Your task to perform on an android device: Go to network settings Image 0: 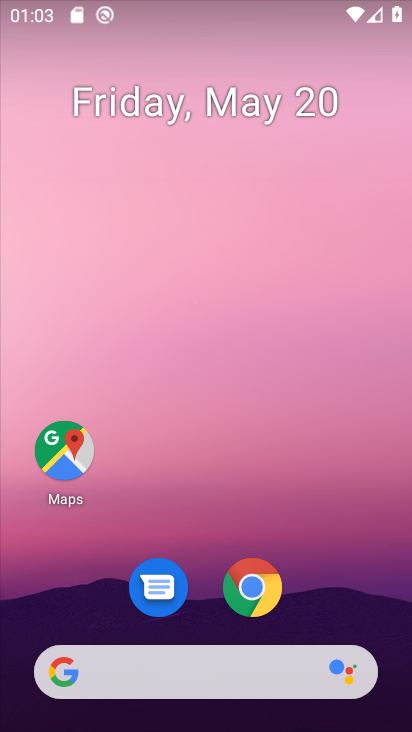
Step 0: drag from (377, 619) to (382, 146)
Your task to perform on an android device: Go to network settings Image 1: 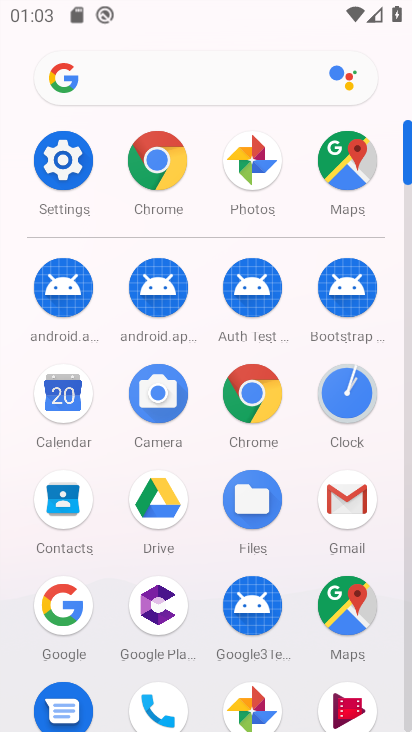
Step 1: click (70, 167)
Your task to perform on an android device: Go to network settings Image 2: 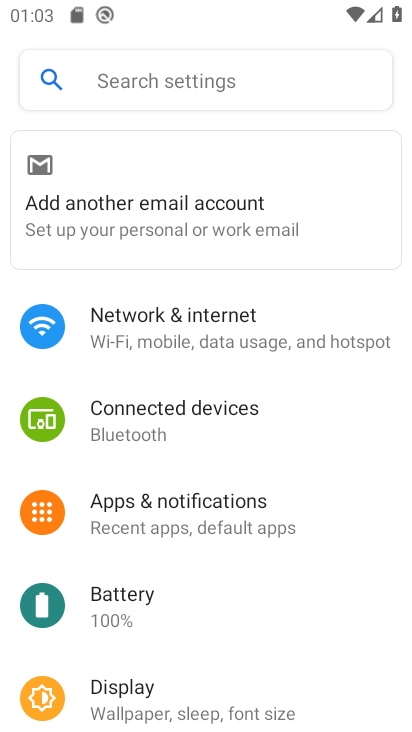
Step 2: drag from (322, 544) to (337, 470)
Your task to perform on an android device: Go to network settings Image 3: 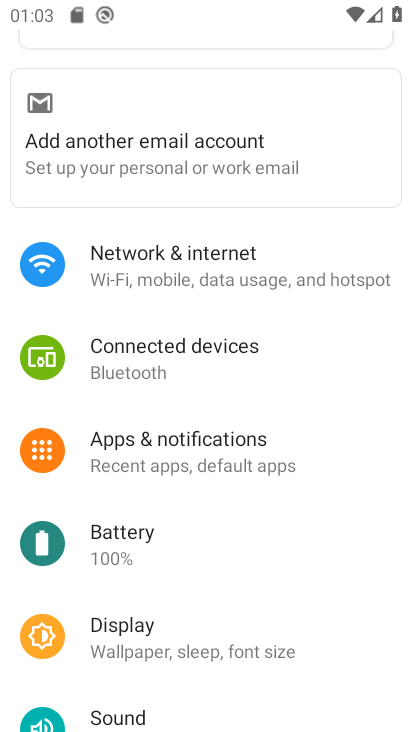
Step 3: drag from (343, 588) to (344, 479)
Your task to perform on an android device: Go to network settings Image 4: 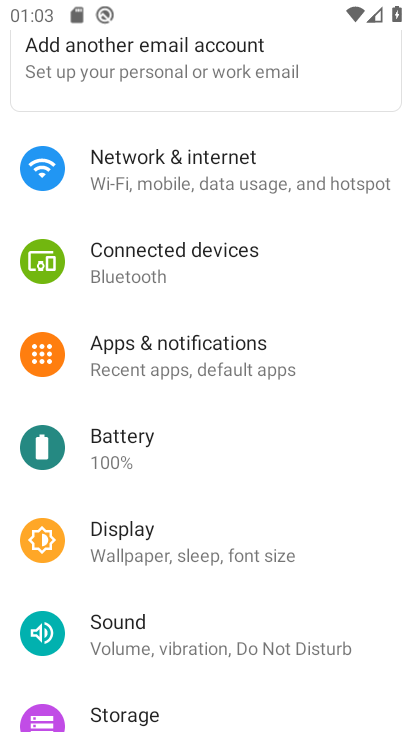
Step 4: drag from (346, 554) to (346, 474)
Your task to perform on an android device: Go to network settings Image 5: 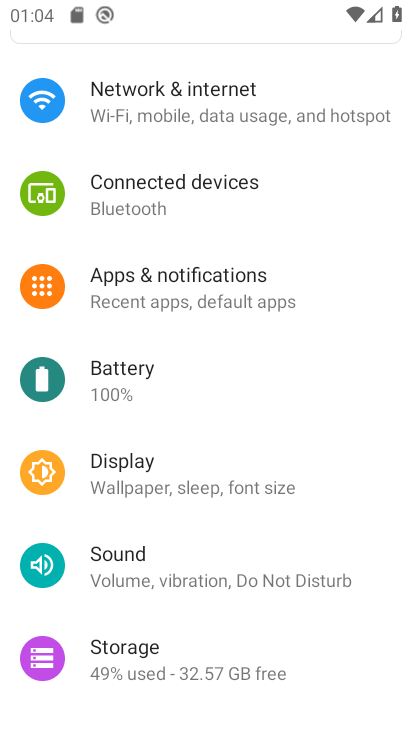
Step 5: drag from (357, 639) to (360, 553)
Your task to perform on an android device: Go to network settings Image 6: 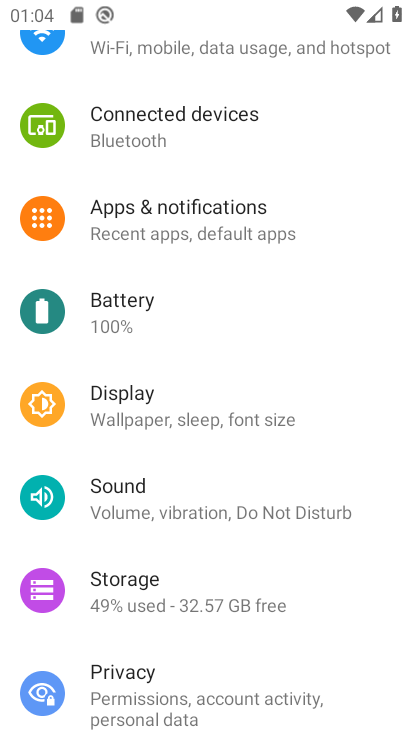
Step 6: drag from (347, 659) to (348, 562)
Your task to perform on an android device: Go to network settings Image 7: 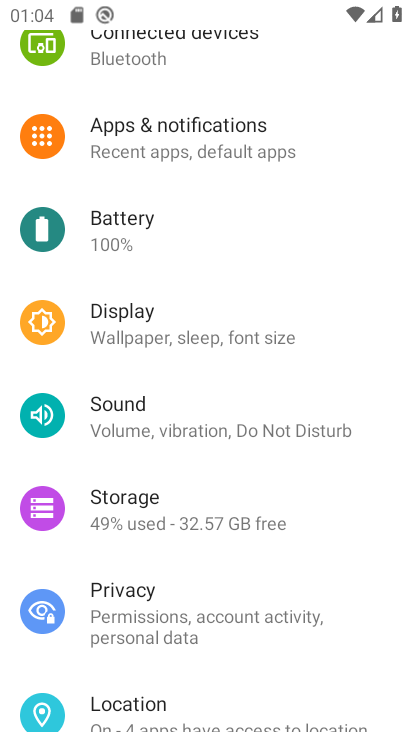
Step 7: drag from (364, 658) to (367, 580)
Your task to perform on an android device: Go to network settings Image 8: 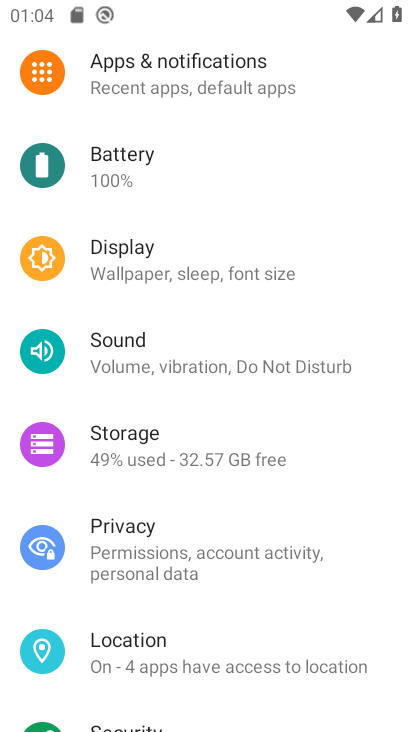
Step 8: drag from (365, 678) to (367, 595)
Your task to perform on an android device: Go to network settings Image 9: 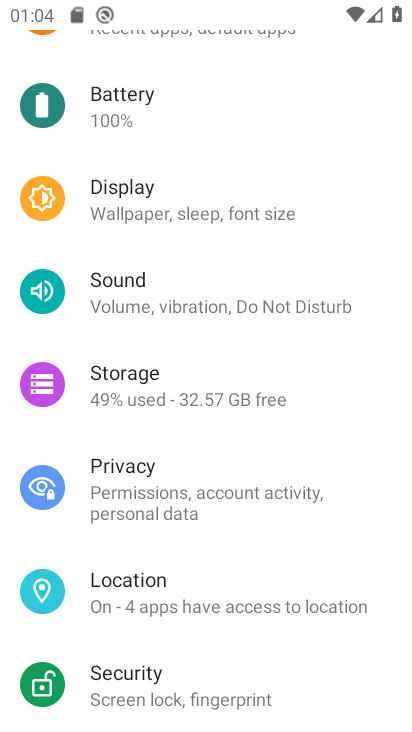
Step 9: drag from (365, 669) to (356, 553)
Your task to perform on an android device: Go to network settings Image 10: 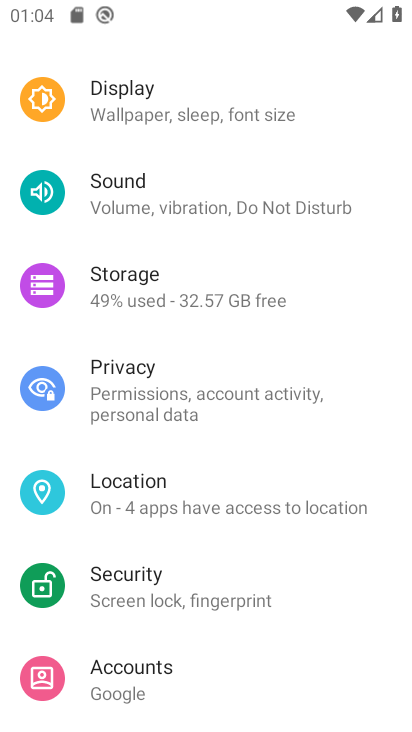
Step 10: drag from (356, 656) to (346, 524)
Your task to perform on an android device: Go to network settings Image 11: 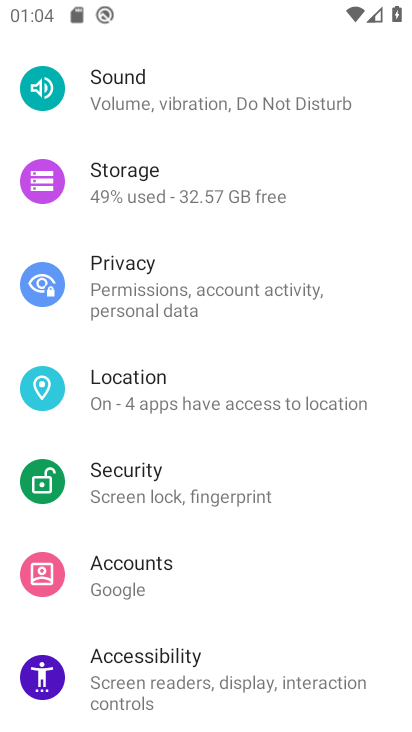
Step 11: drag from (346, 346) to (338, 527)
Your task to perform on an android device: Go to network settings Image 12: 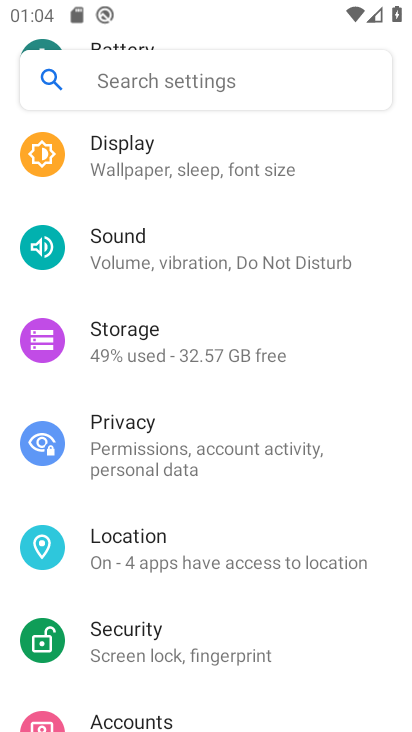
Step 12: drag from (341, 296) to (347, 470)
Your task to perform on an android device: Go to network settings Image 13: 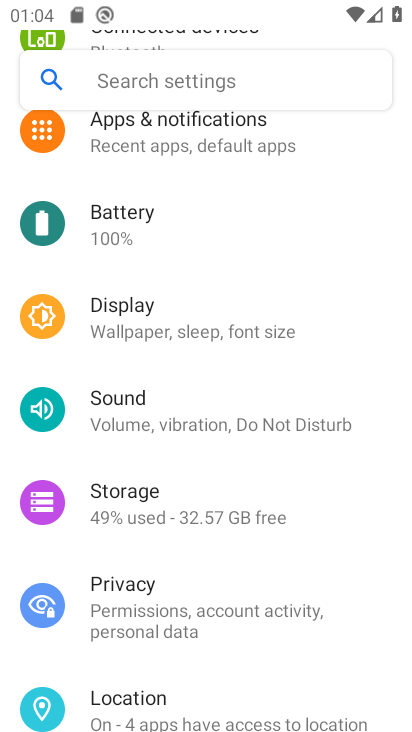
Step 13: drag from (354, 343) to (356, 456)
Your task to perform on an android device: Go to network settings Image 14: 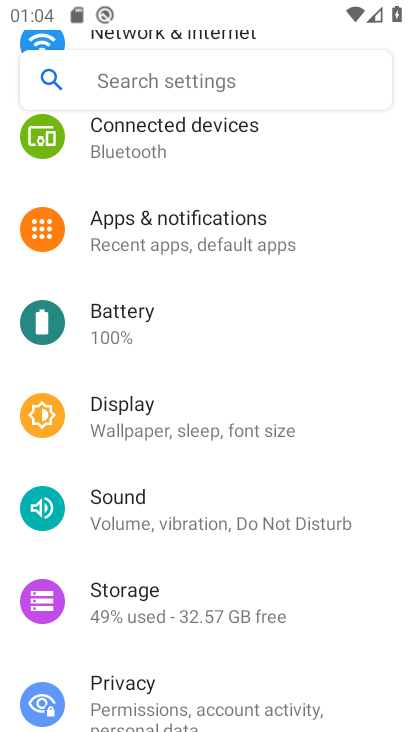
Step 14: drag from (356, 338) to (360, 458)
Your task to perform on an android device: Go to network settings Image 15: 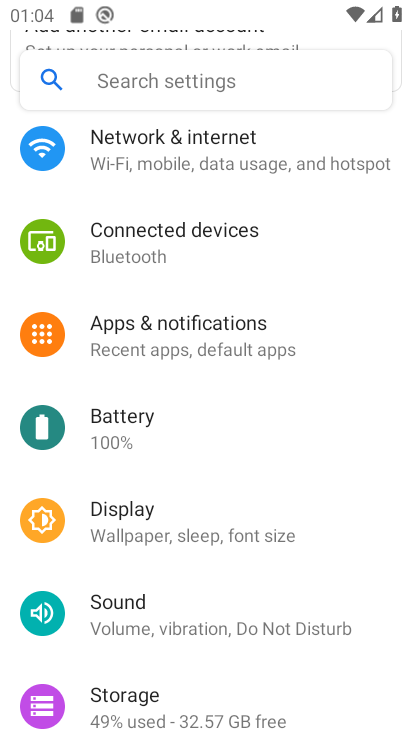
Step 15: drag from (350, 278) to (350, 375)
Your task to perform on an android device: Go to network settings Image 16: 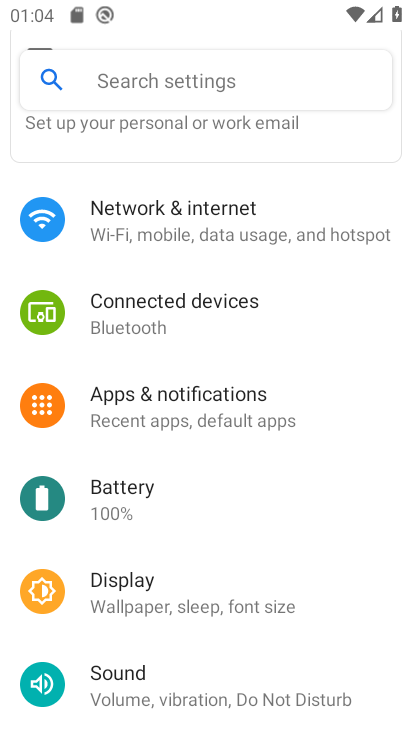
Step 16: drag from (346, 272) to (349, 376)
Your task to perform on an android device: Go to network settings Image 17: 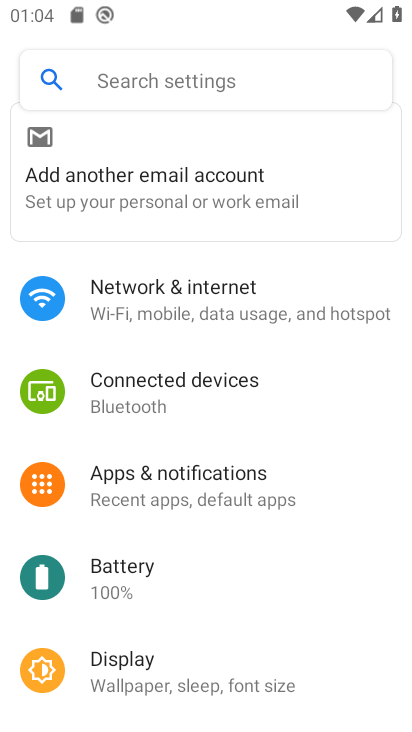
Step 17: click (304, 309)
Your task to perform on an android device: Go to network settings Image 18: 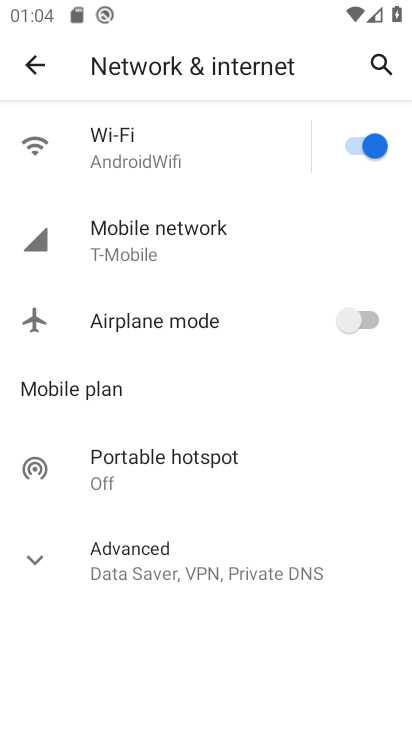
Step 18: task complete